Your task to perform on an android device: toggle translation in the chrome app Image 0: 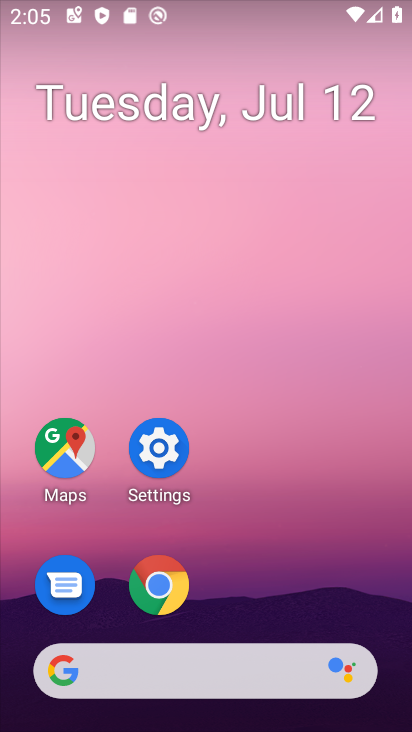
Step 0: click (160, 584)
Your task to perform on an android device: toggle translation in the chrome app Image 1: 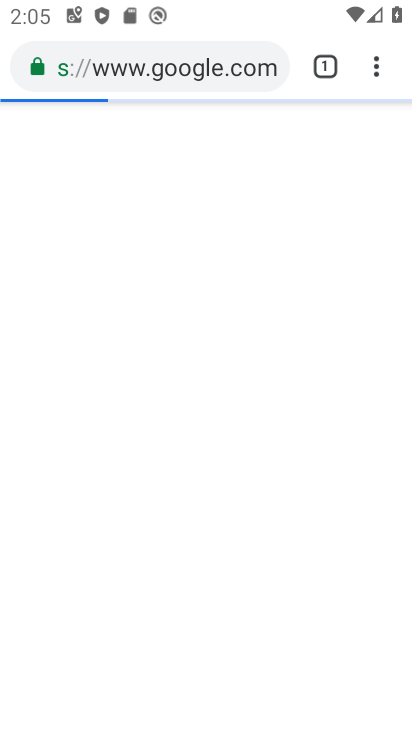
Step 1: click (372, 72)
Your task to perform on an android device: toggle translation in the chrome app Image 2: 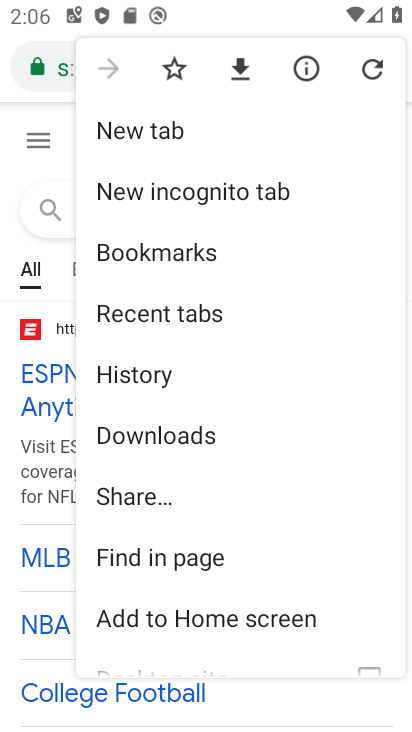
Step 2: drag from (298, 574) to (300, 275)
Your task to perform on an android device: toggle translation in the chrome app Image 3: 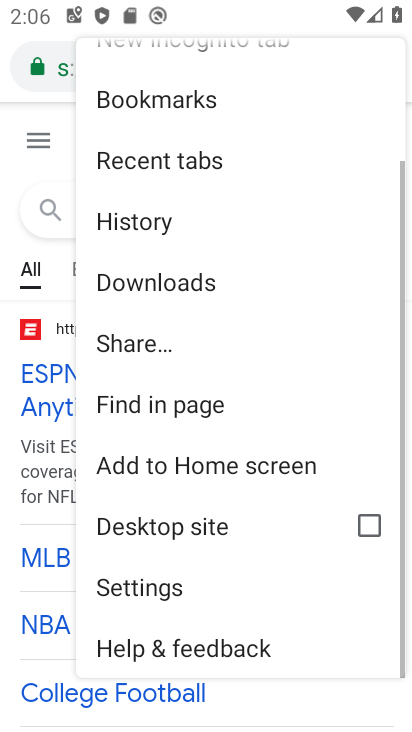
Step 3: click (111, 585)
Your task to perform on an android device: toggle translation in the chrome app Image 4: 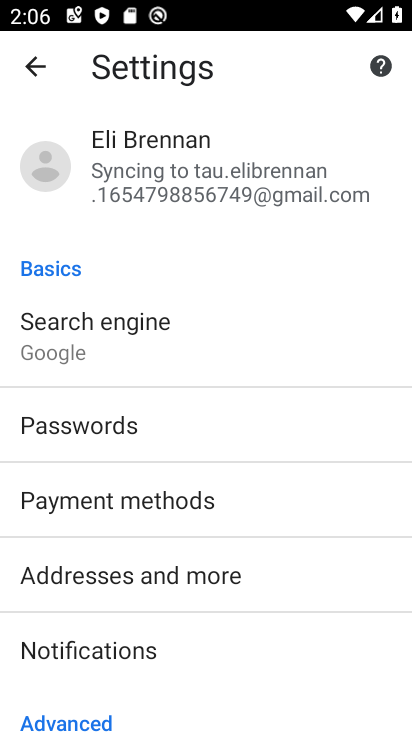
Step 4: drag from (307, 670) to (314, 294)
Your task to perform on an android device: toggle translation in the chrome app Image 5: 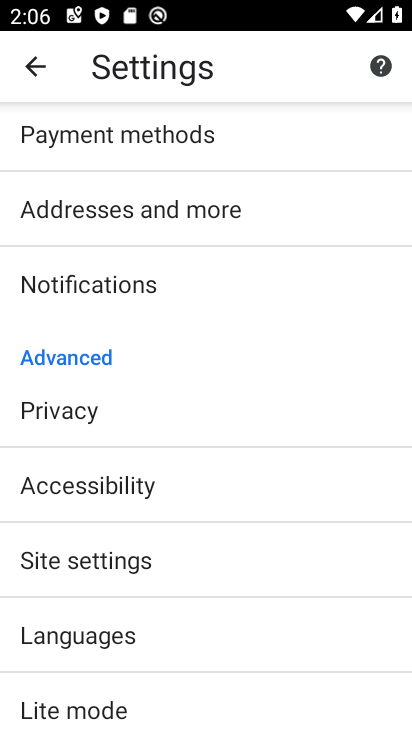
Step 5: click (64, 642)
Your task to perform on an android device: toggle translation in the chrome app Image 6: 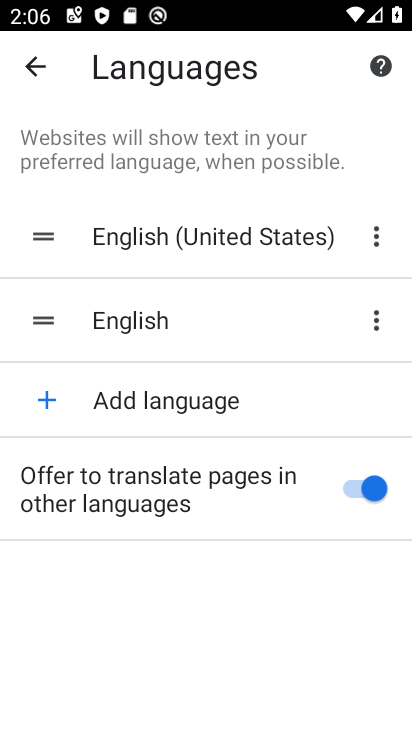
Step 6: click (356, 490)
Your task to perform on an android device: toggle translation in the chrome app Image 7: 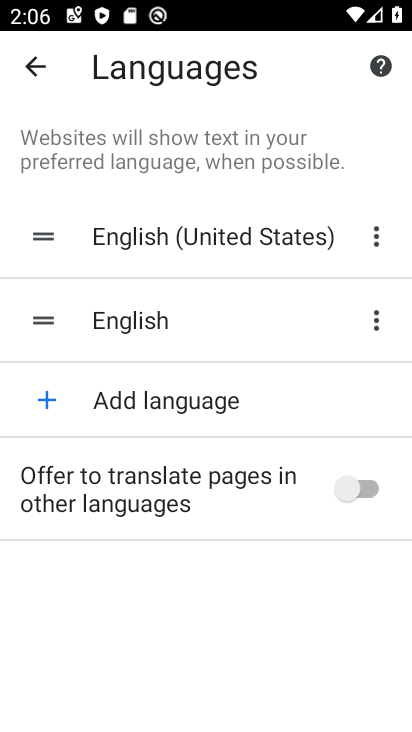
Step 7: task complete